Your task to perform on an android device: see creations saved in the google photos Image 0: 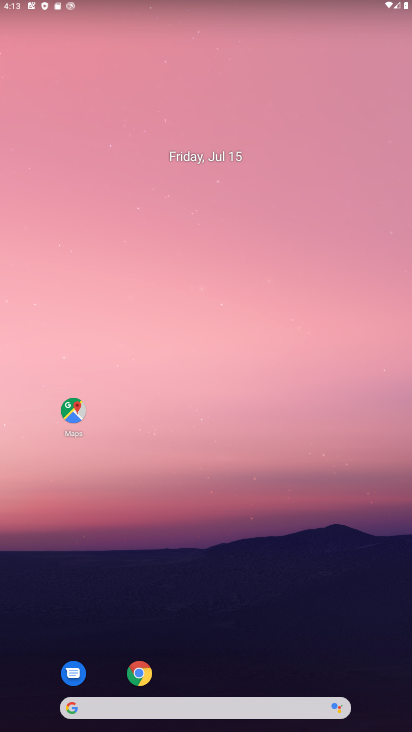
Step 0: drag from (219, 625) to (220, 108)
Your task to perform on an android device: see creations saved in the google photos Image 1: 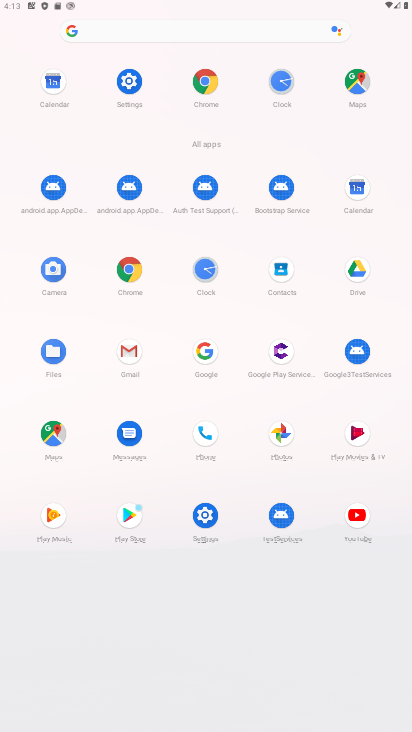
Step 1: click (285, 426)
Your task to perform on an android device: see creations saved in the google photos Image 2: 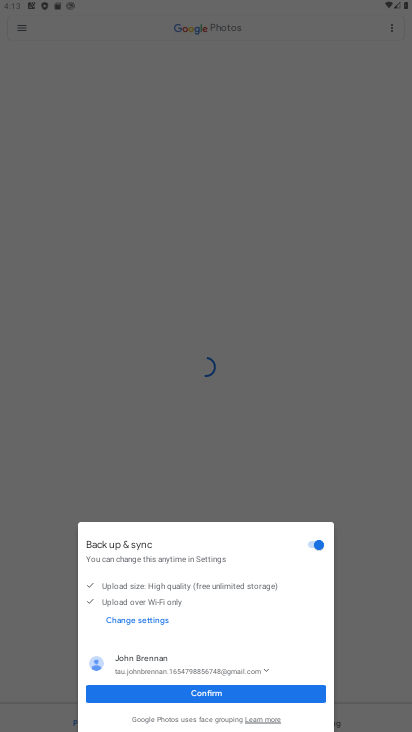
Step 2: click (263, 688)
Your task to perform on an android device: see creations saved in the google photos Image 3: 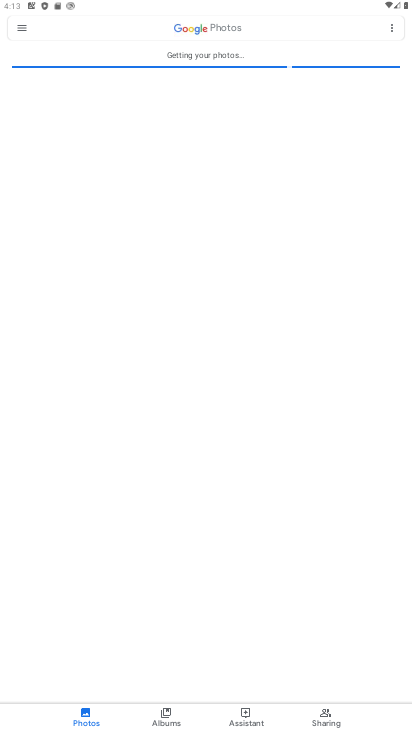
Step 3: click (162, 714)
Your task to perform on an android device: see creations saved in the google photos Image 4: 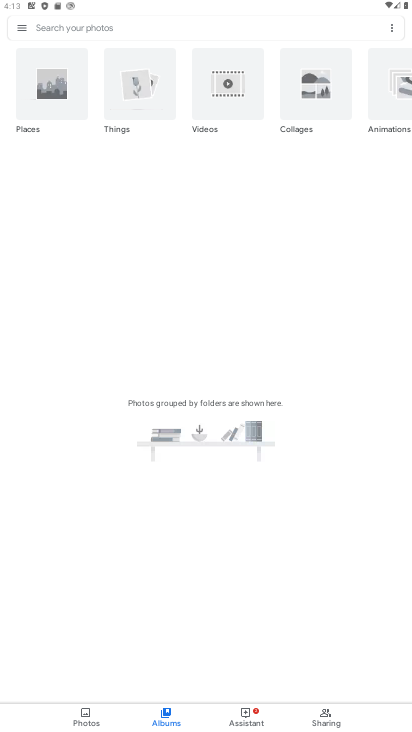
Step 4: task complete